Your task to perform on an android device: open the mobile data screen to see how much data has been used Image 0: 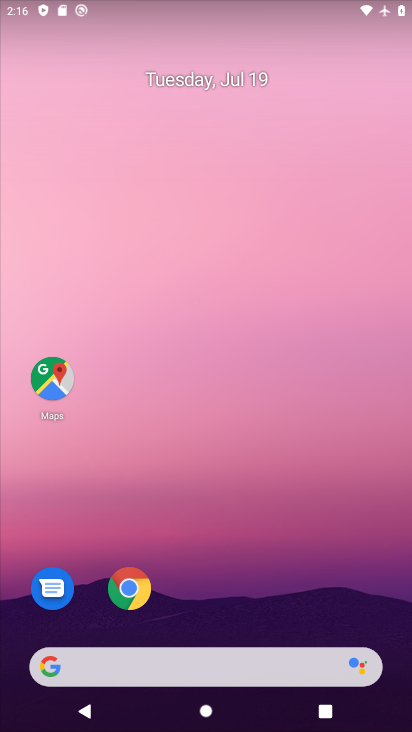
Step 0: press home button
Your task to perform on an android device: open the mobile data screen to see how much data has been used Image 1: 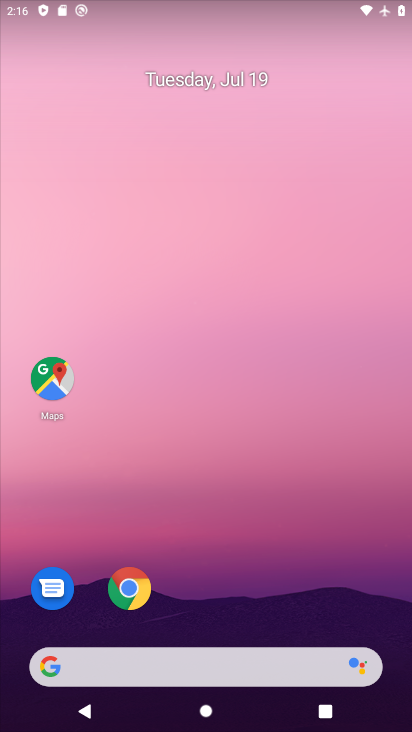
Step 1: drag from (237, 620) to (315, 7)
Your task to perform on an android device: open the mobile data screen to see how much data has been used Image 2: 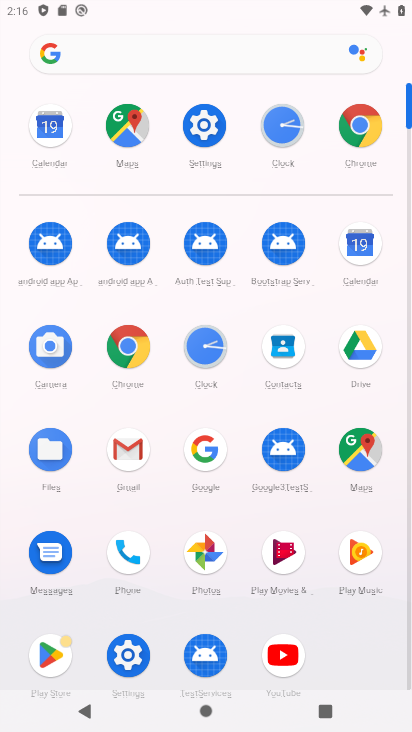
Step 2: click (192, 127)
Your task to perform on an android device: open the mobile data screen to see how much data has been used Image 3: 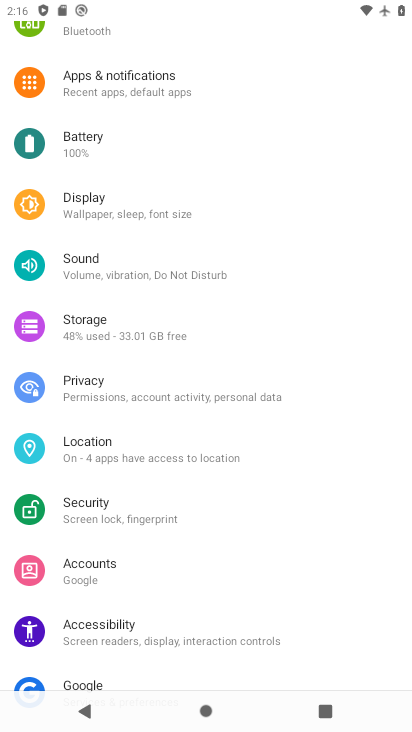
Step 3: drag from (263, 211) to (257, 529)
Your task to perform on an android device: open the mobile data screen to see how much data has been used Image 4: 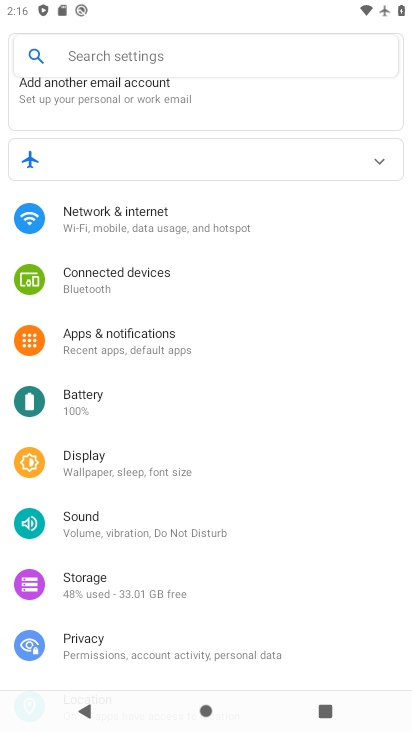
Step 4: click (89, 214)
Your task to perform on an android device: open the mobile data screen to see how much data has been used Image 5: 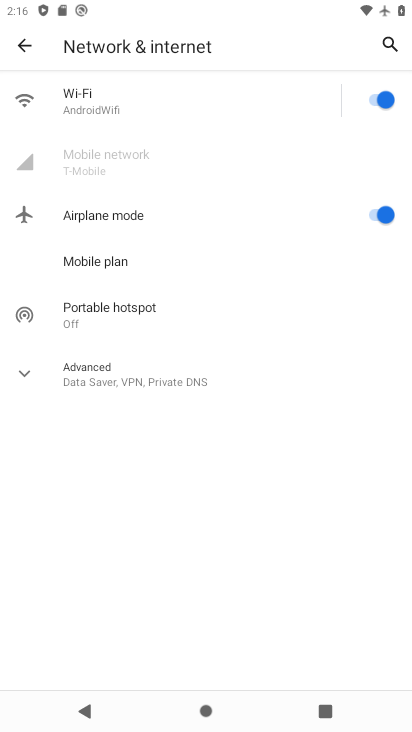
Step 5: click (112, 163)
Your task to perform on an android device: open the mobile data screen to see how much data has been used Image 6: 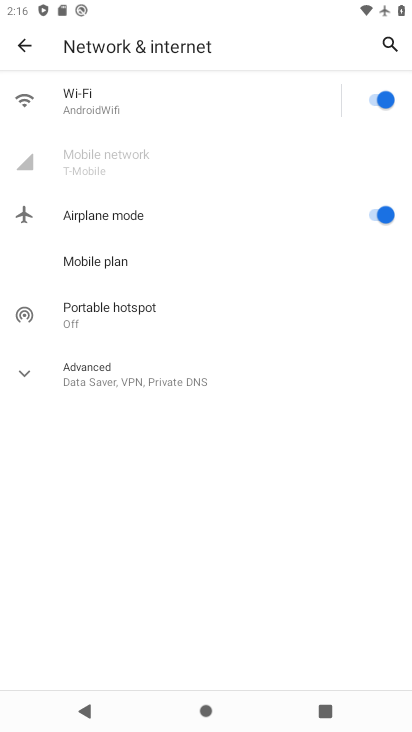
Step 6: drag from (255, 17) to (274, 398)
Your task to perform on an android device: open the mobile data screen to see how much data has been used Image 7: 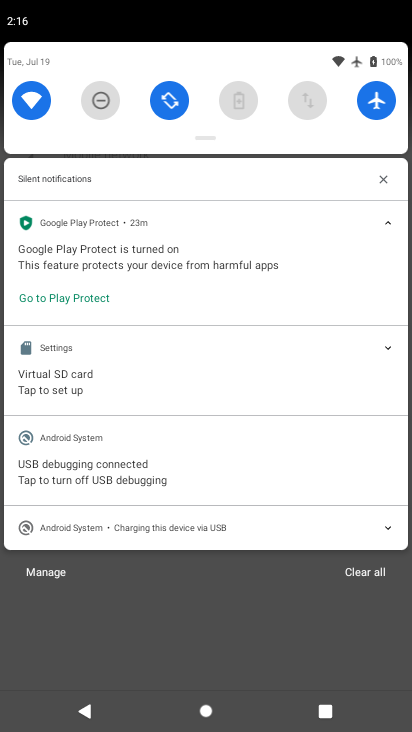
Step 7: click (374, 109)
Your task to perform on an android device: open the mobile data screen to see how much data has been used Image 8: 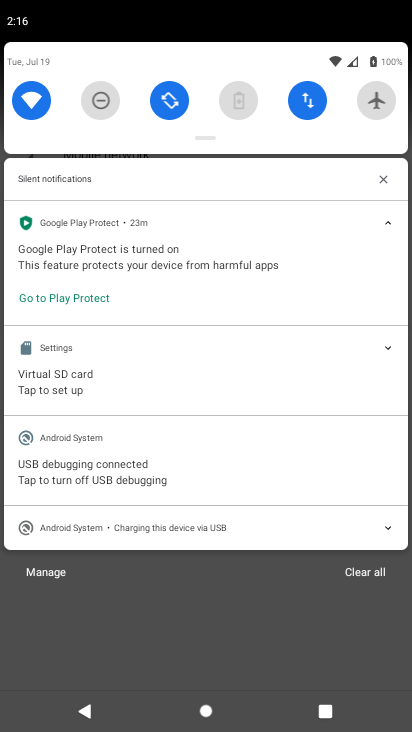
Step 8: drag from (249, 516) to (273, 85)
Your task to perform on an android device: open the mobile data screen to see how much data has been used Image 9: 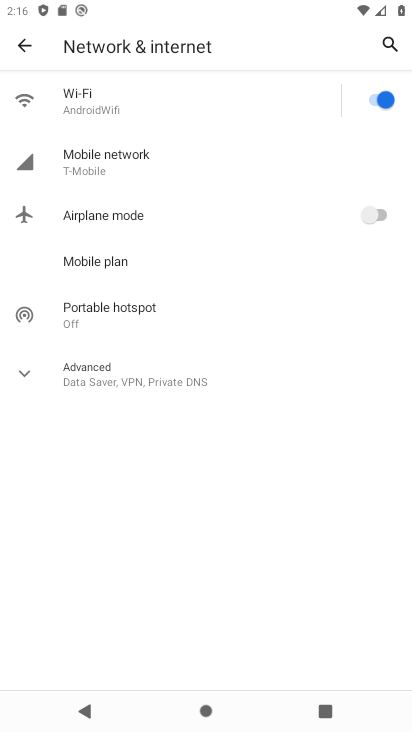
Step 9: click (119, 156)
Your task to perform on an android device: open the mobile data screen to see how much data has been used Image 10: 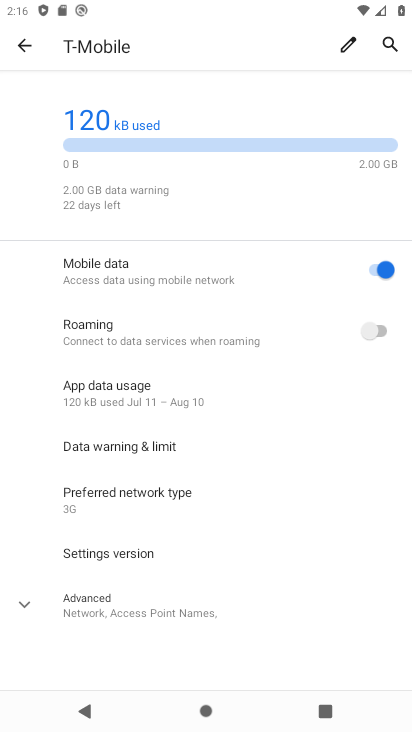
Step 10: click (116, 395)
Your task to perform on an android device: open the mobile data screen to see how much data has been used Image 11: 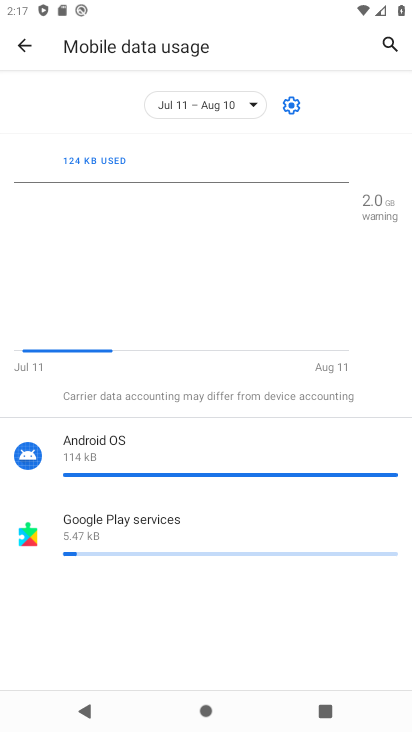
Step 11: task complete